Your task to perform on an android device: toggle translation in the chrome app Image 0: 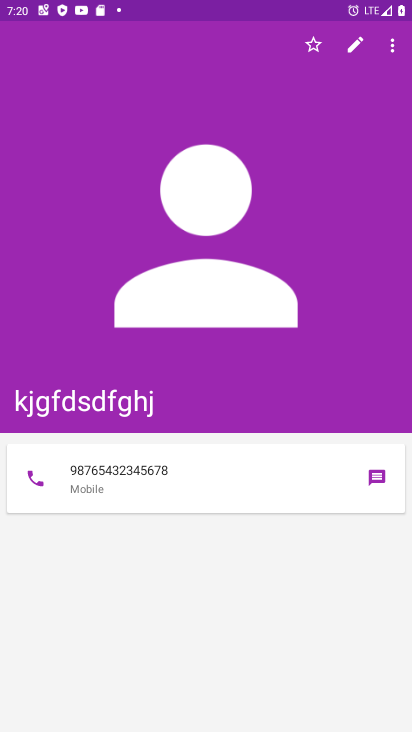
Step 0: press home button
Your task to perform on an android device: toggle translation in the chrome app Image 1: 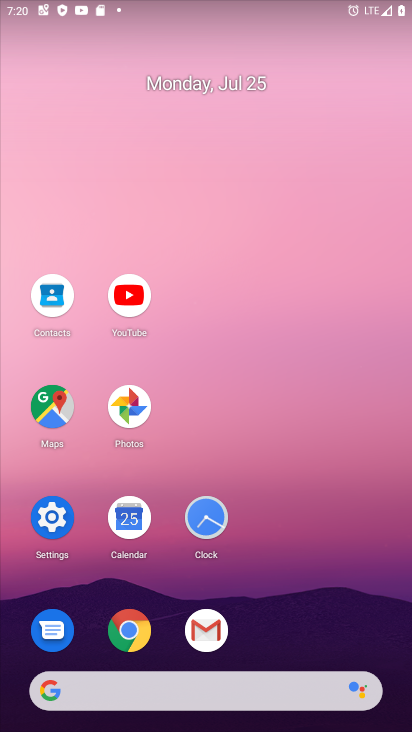
Step 1: click (130, 630)
Your task to perform on an android device: toggle translation in the chrome app Image 2: 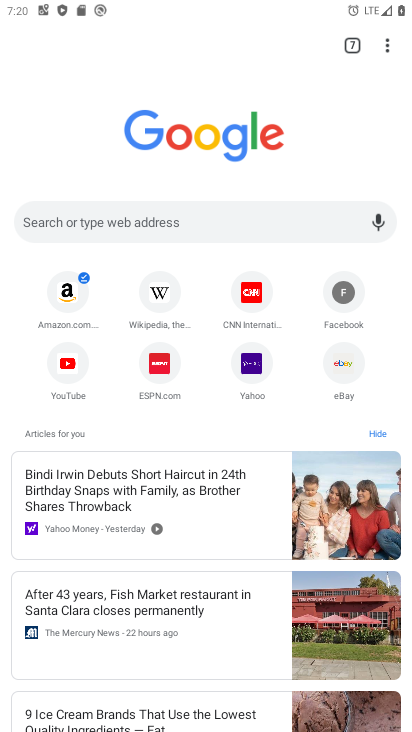
Step 2: click (386, 41)
Your task to perform on an android device: toggle translation in the chrome app Image 3: 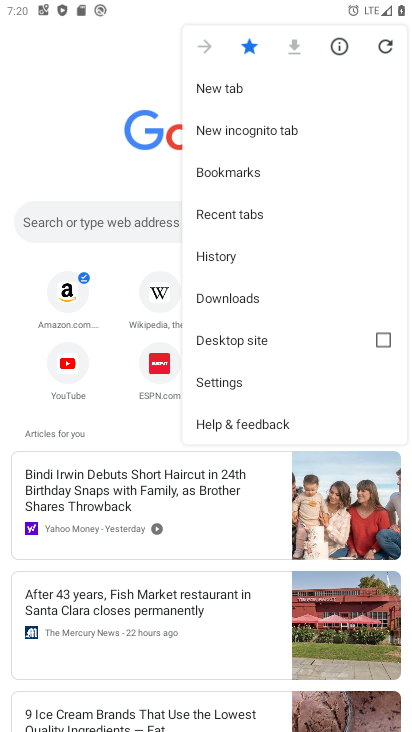
Step 3: click (220, 372)
Your task to perform on an android device: toggle translation in the chrome app Image 4: 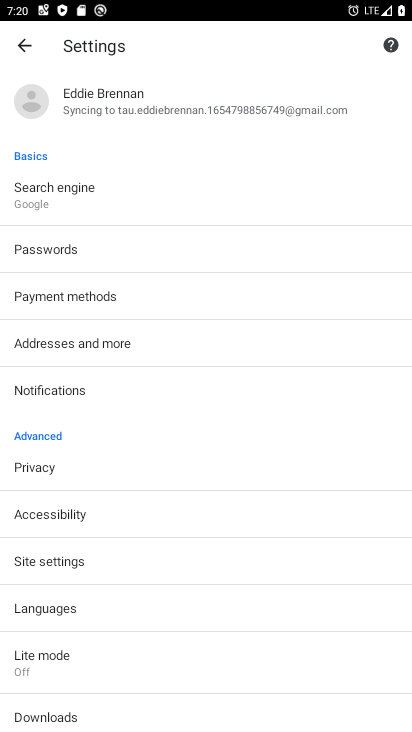
Step 4: click (55, 608)
Your task to perform on an android device: toggle translation in the chrome app Image 5: 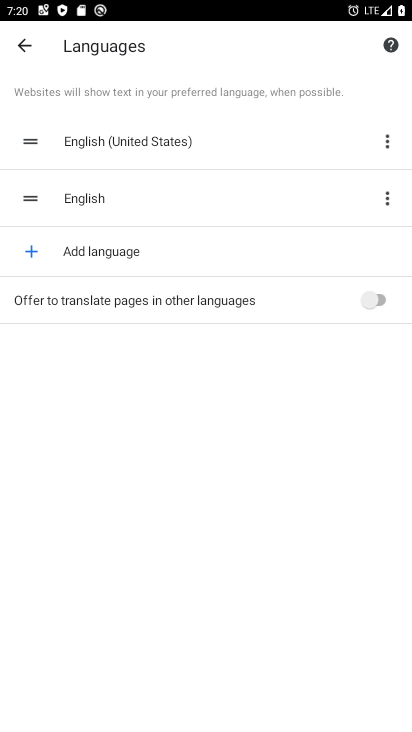
Step 5: click (364, 291)
Your task to perform on an android device: toggle translation in the chrome app Image 6: 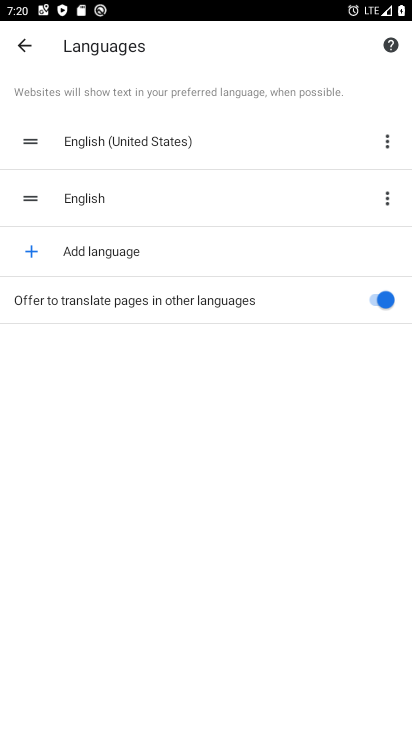
Step 6: task complete